Your task to perform on an android device: What's on my calendar today? Image 0: 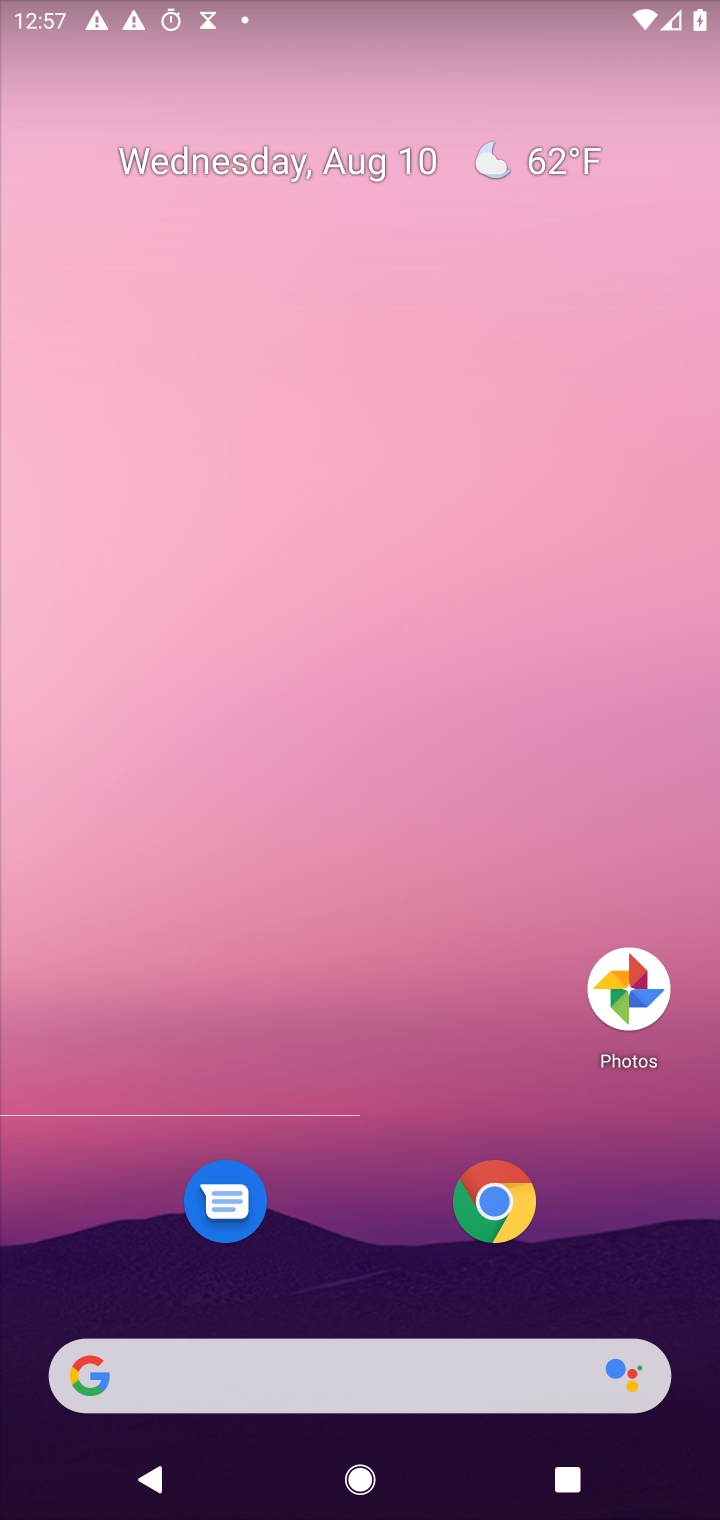
Step 0: press home button
Your task to perform on an android device: What's on my calendar today? Image 1: 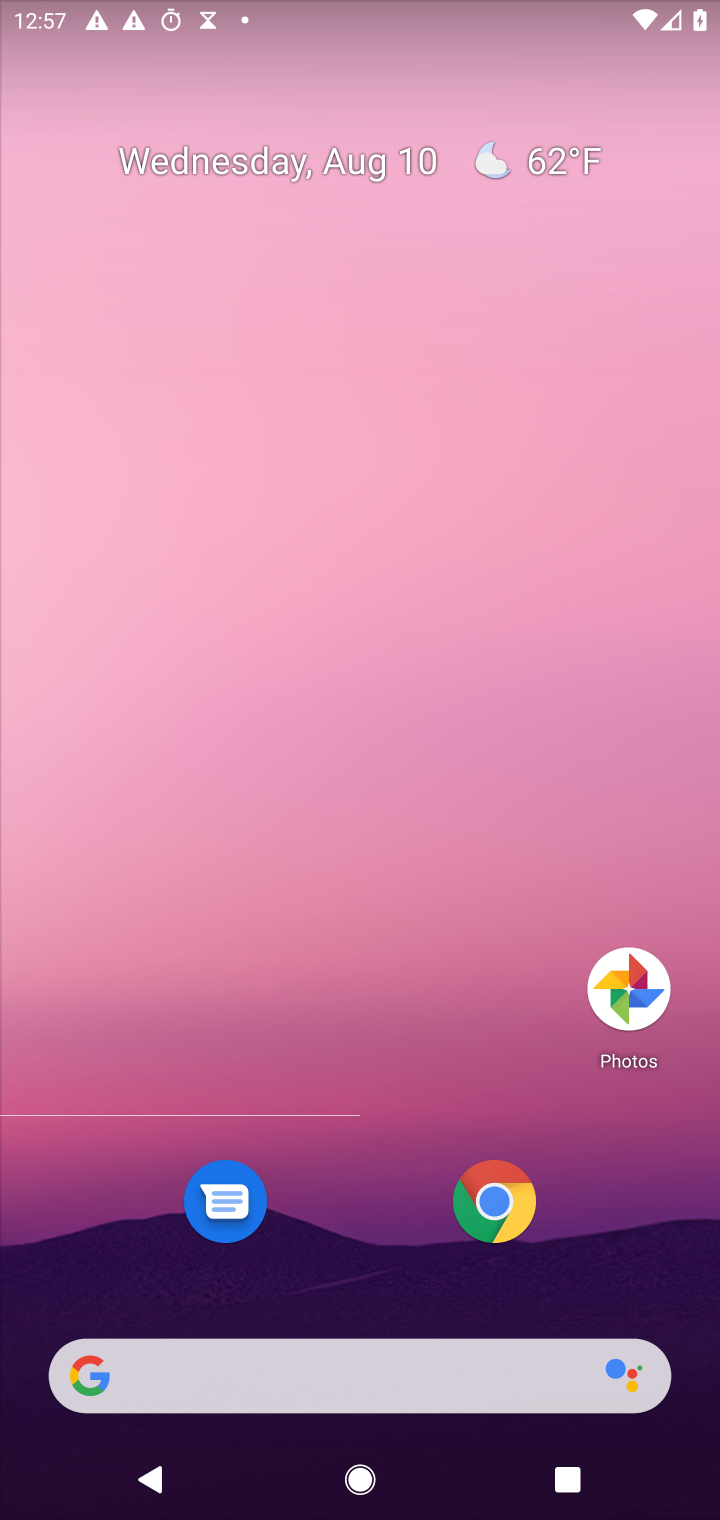
Step 1: drag from (367, 827) to (357, 186)
Your task to perform on an android device: What's on my calendar today? Image 2: 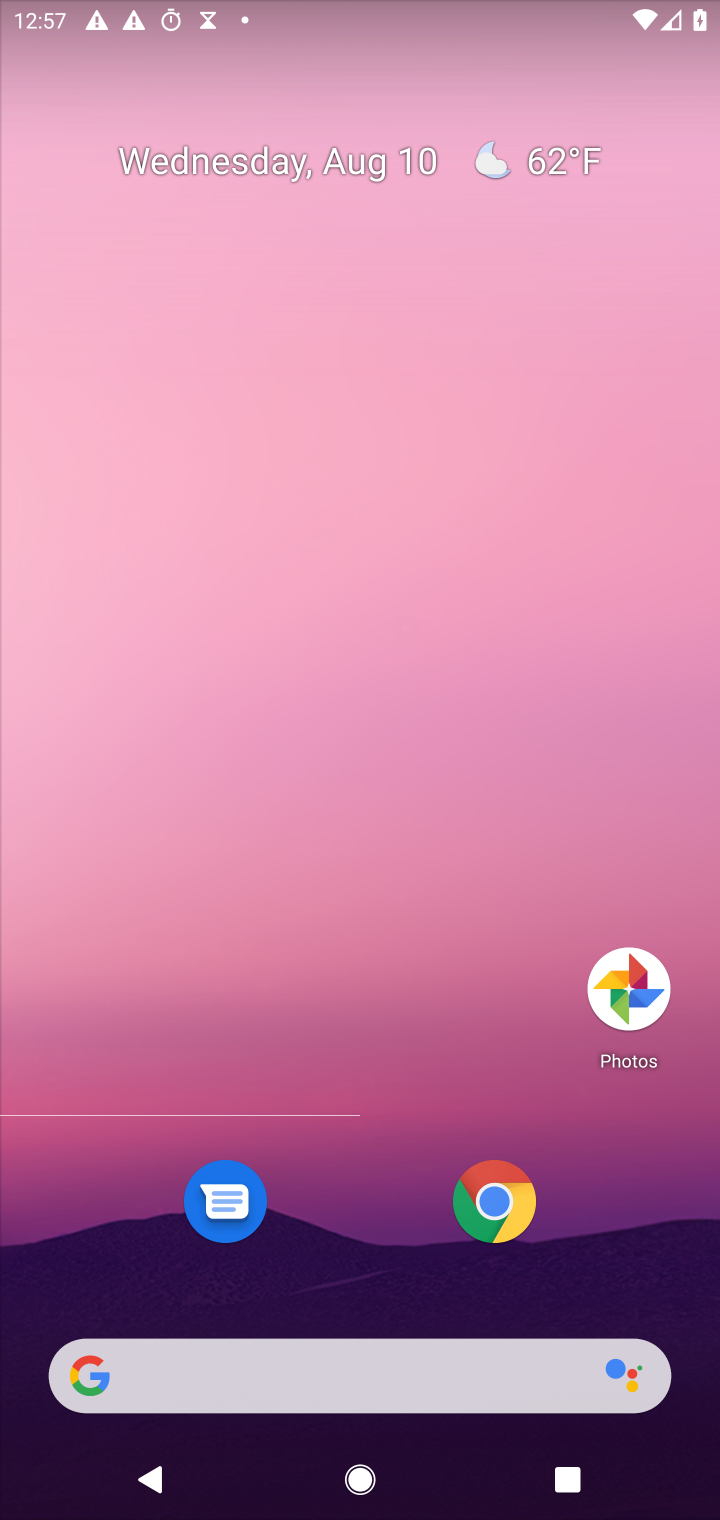
Step 2: drag from (352, 905) to (359, 189)
Your task to perform on an android device: What's on my calendar today? Image 3: 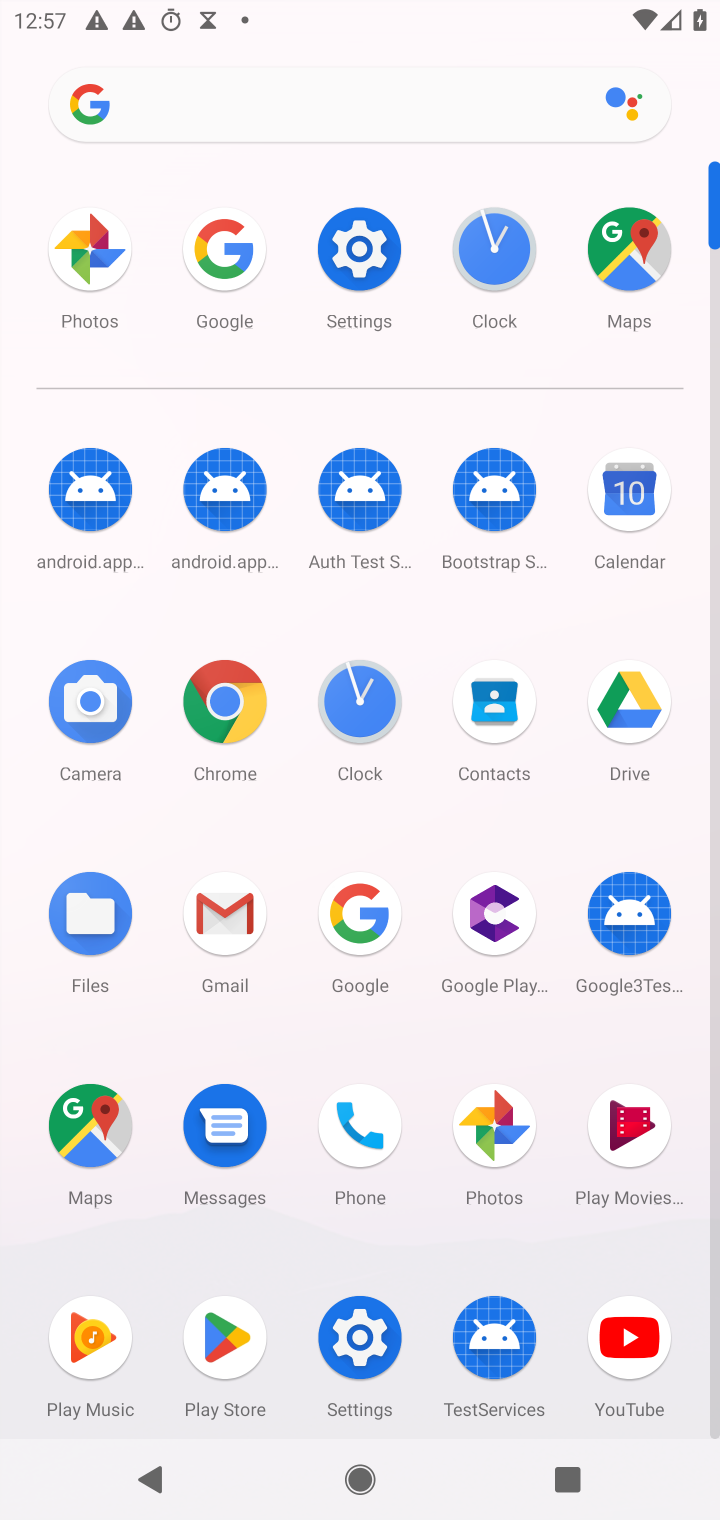
Step 3: click (622, 488)
Your task to perform on an android device: What's on my calendar today? Image 4: 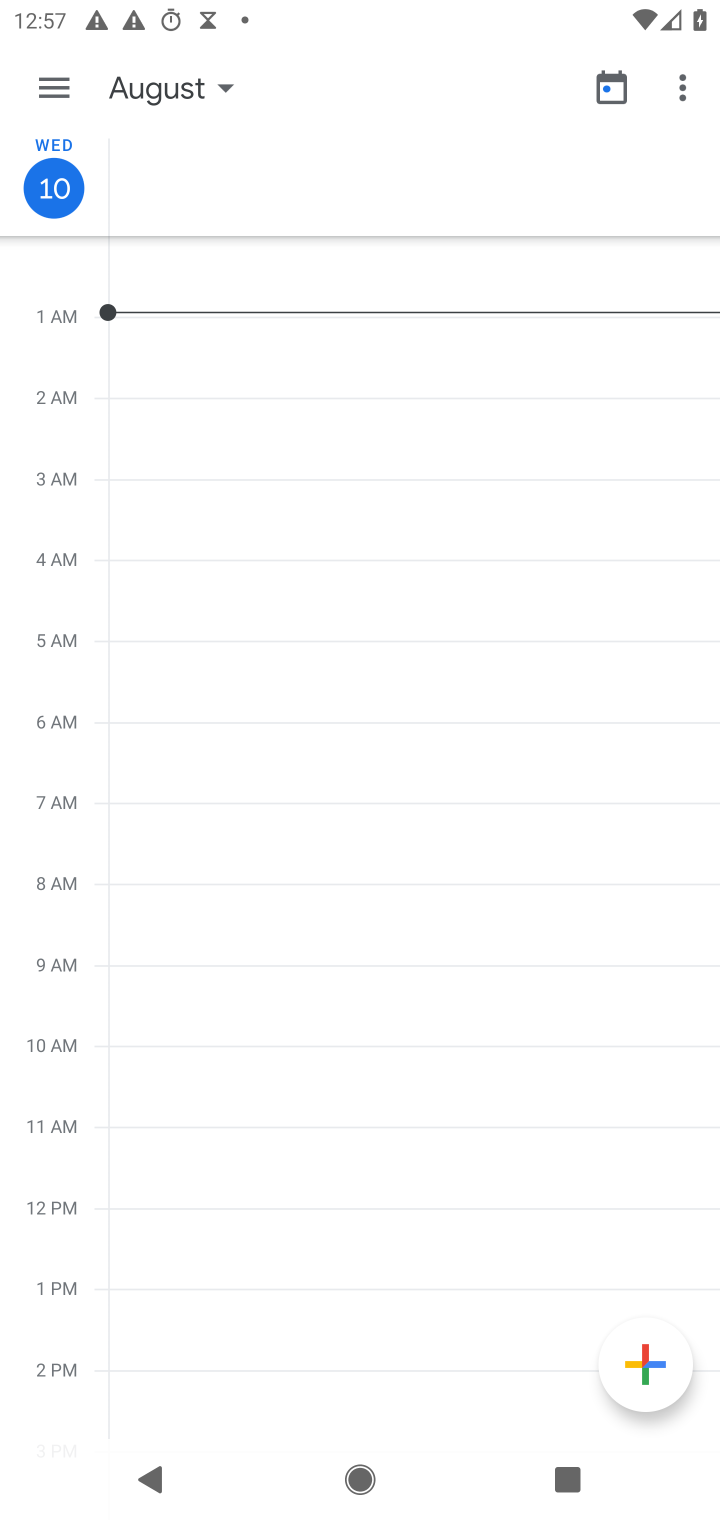
Step 4: click (57, 186)
Your task to perform on an android device: What's on my calendar today? Image 5: 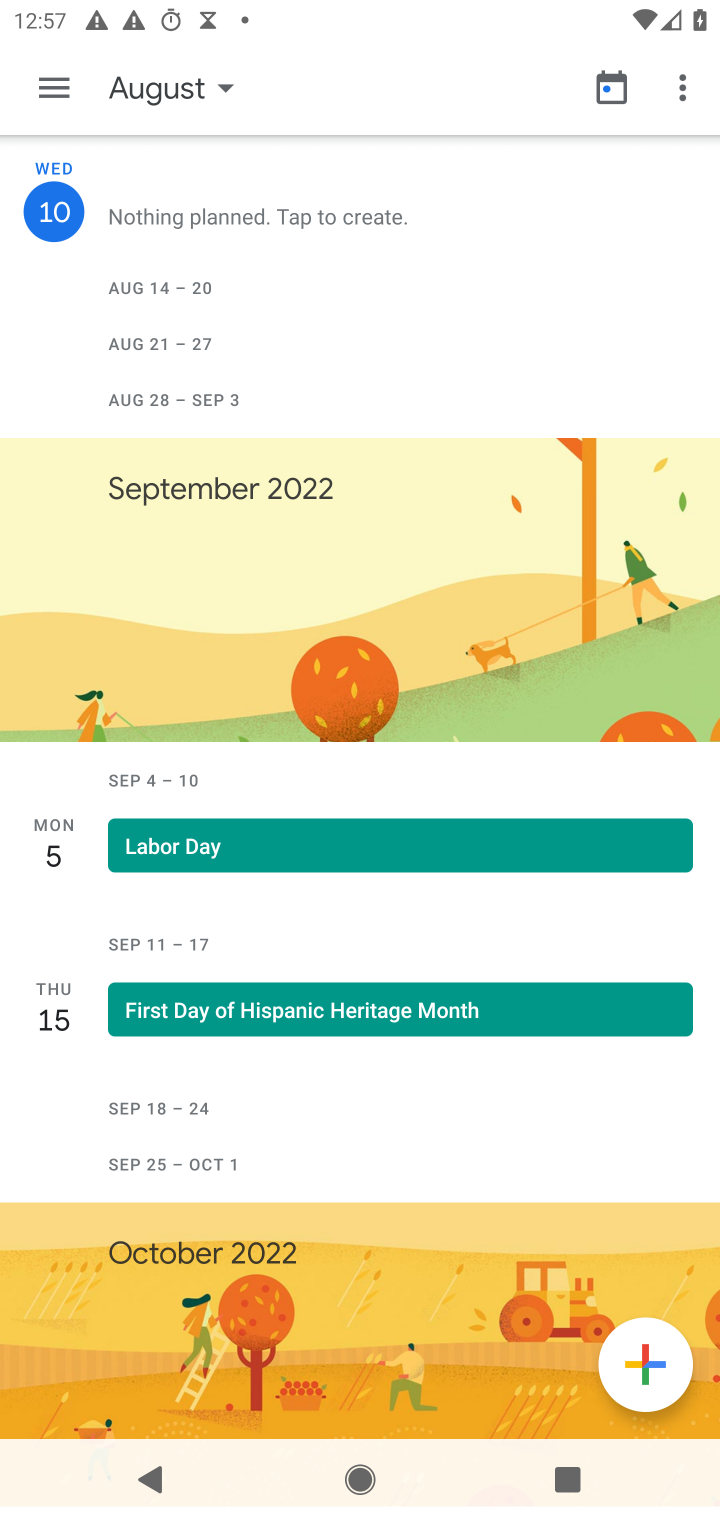
Step 5: task complete